Your task to perform on an android device: Open Google Chrome Image 0: 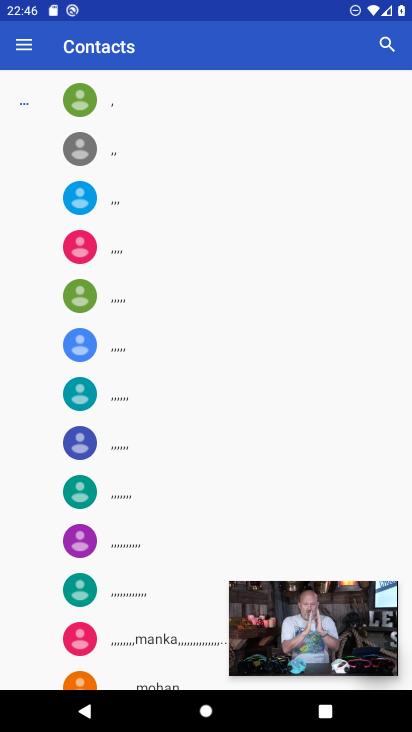
Step 0: press home button
Your task to perform on an android device: Open Google Chrome Image 1: 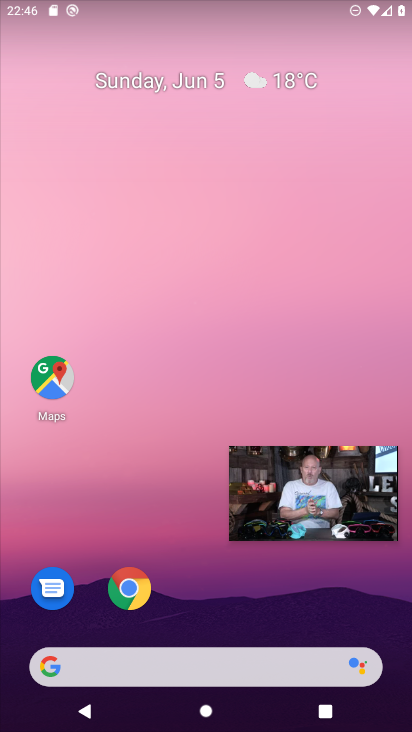
Step 1: drag from (281, 581) to (324, 126)
Your task to perform on an android device: Open Google Chrome Image 2: 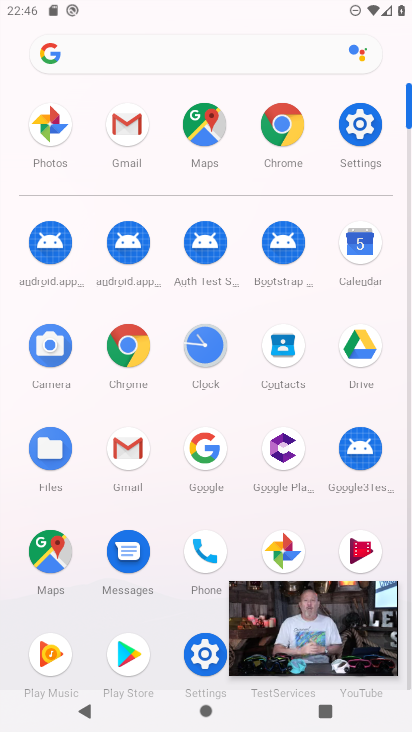
Step 2: click (126, 344)
Your task to perform on an android device: Open Google Chrome Image 3: 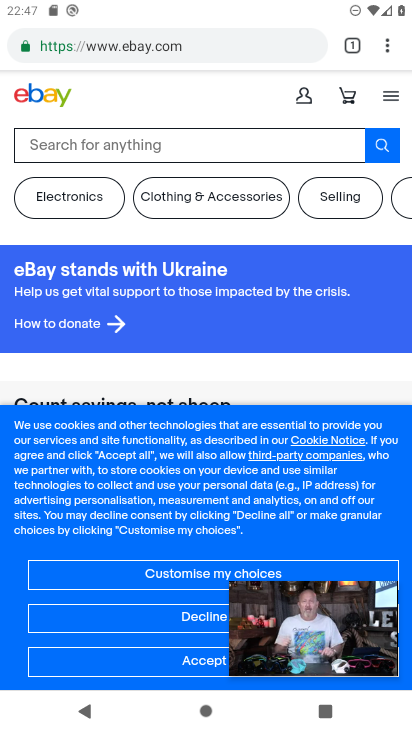
Step 3: task complete